Your task to perform on an android device: What's on my calendar today? Image 0: 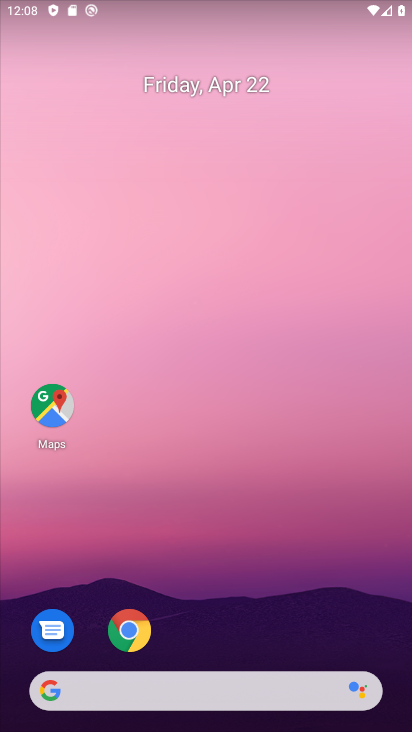
Step 0: drag from (279, 682) to (243, 23)
Your task to perform on an android device: What's on my calendar today? Image 1: 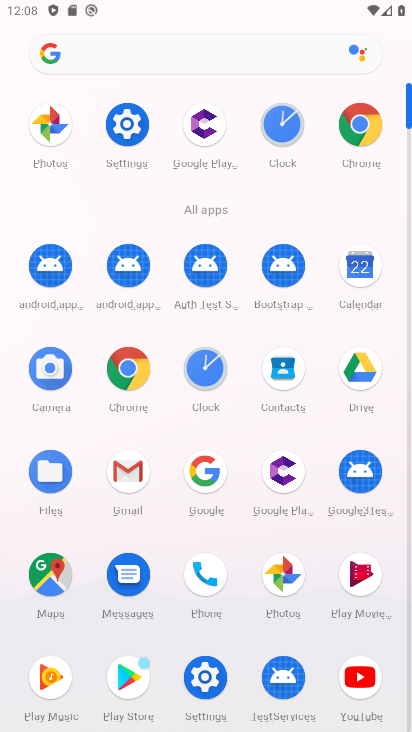
Step 1: click (361, 264)
Your task to perform on an android device: What's on my calendar today? Image 2: 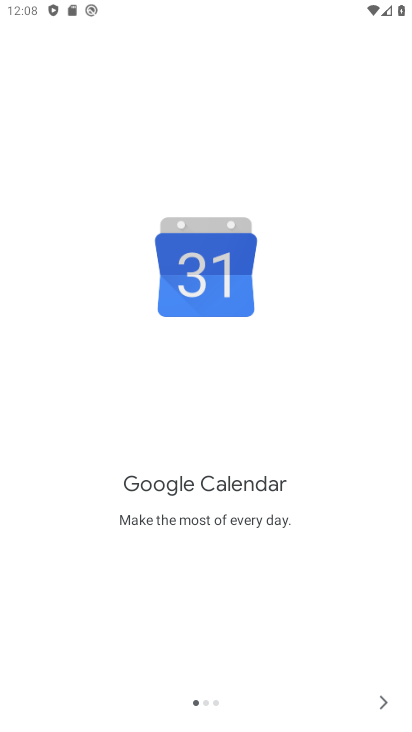
Step 2: click (383, 704)
Your task to perform on an android device: What's on my calendar today? Image 3: 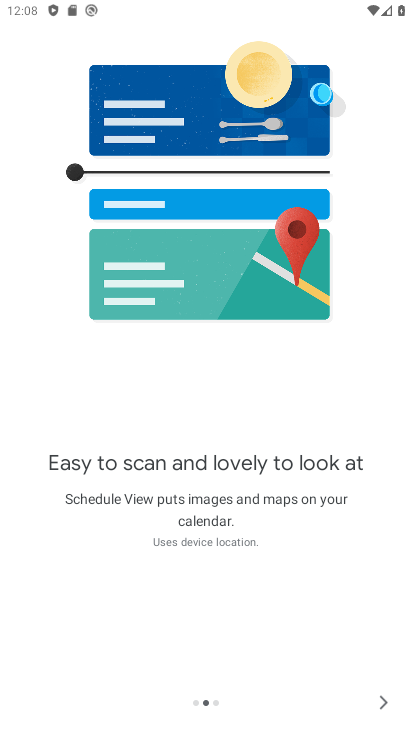
Step 3: click (383, 704)
Your task to perform on an android device: What's on my calendar today? Image 4: 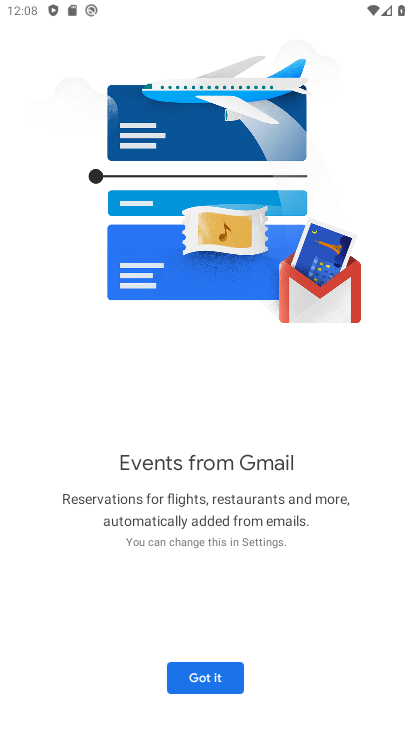
Step 4: click (189, 682)
Your task to perform on an android device: What's on my calendar today? Image 5: 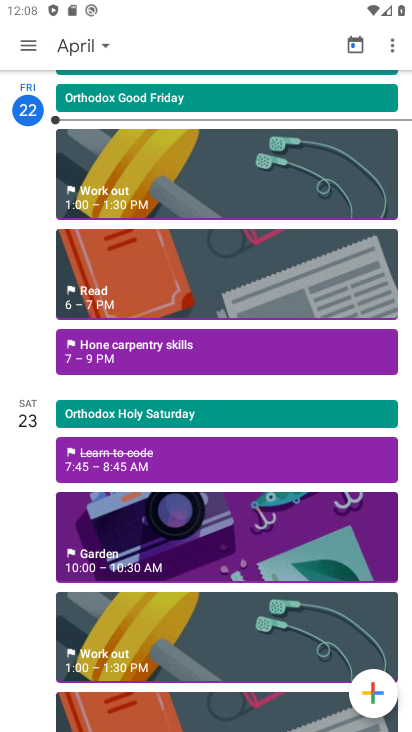
Step 5: task complete